Your task to perform on an android device: turn on bluetooth scan Image 0: 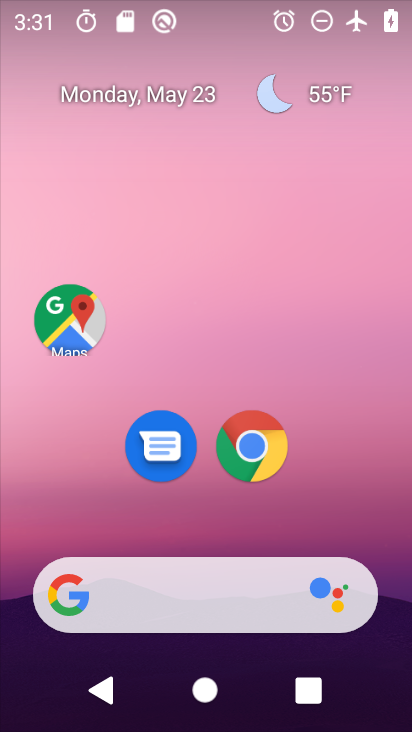
Step 0: drag from (206, 512) to (179, 135)
Your task to perform on an android device: turn on bluetooth scan Image 1: 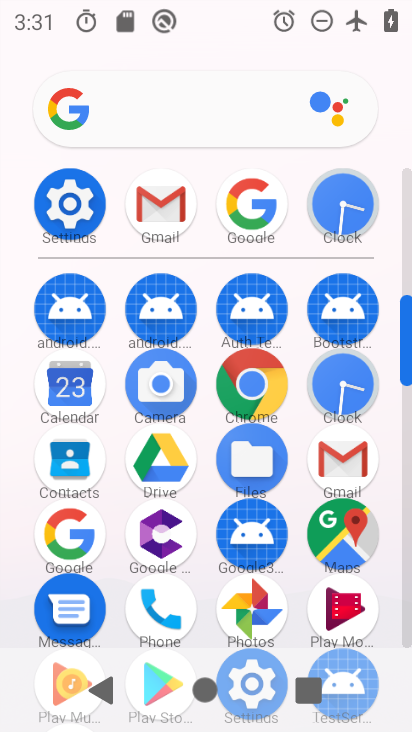
Step 1: click (37, 208)
Your task to perform on an android device: turn on bluetooth scan Image 2: 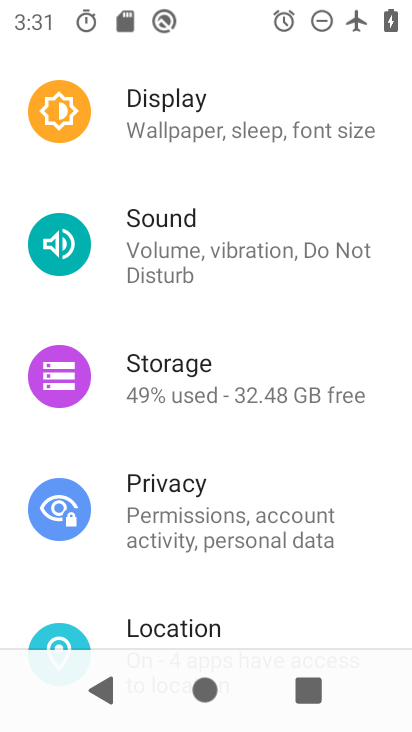
Step 2: click (240, 606)
Your task to perform on an android device: turn on bluetooth scan Image 3: 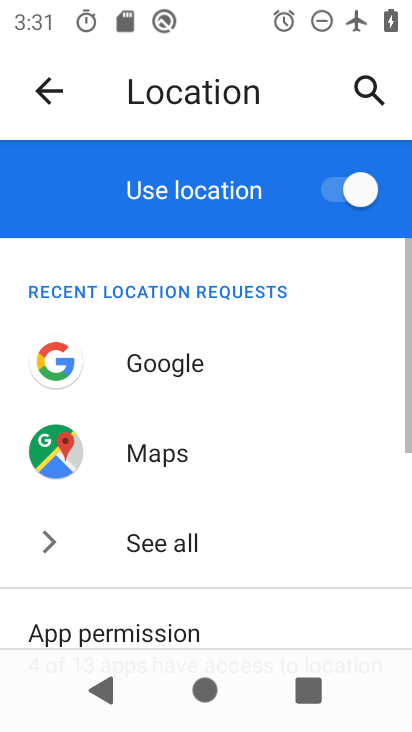
Step 3: drag from (231, 546) to (188, 269)
Your task to perform on an android device: turn on bluetooth scan Image 4: 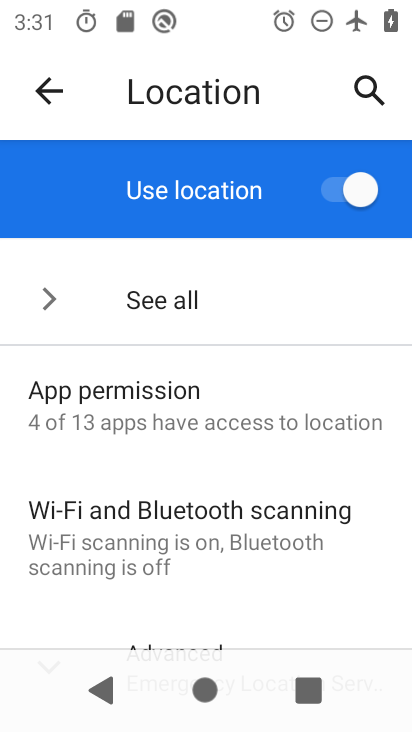
Step 4: click (270, 546)
Your task to perform on an android device: turn on bluetooth scan Image 5: 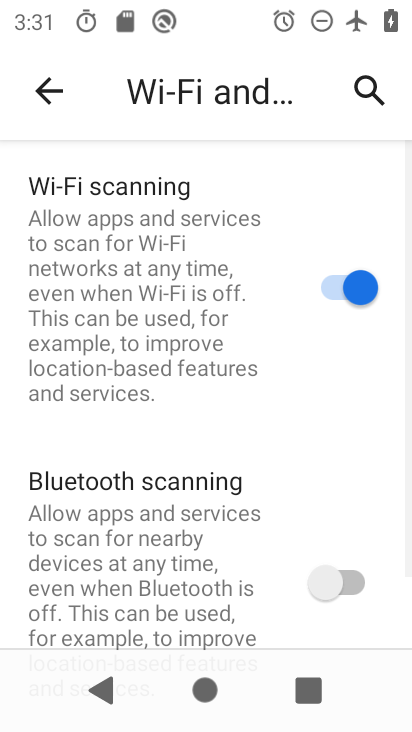
Step 5: click (347, 579)
Your task to perform on an android device: turn on bluetooth scan Image 6: 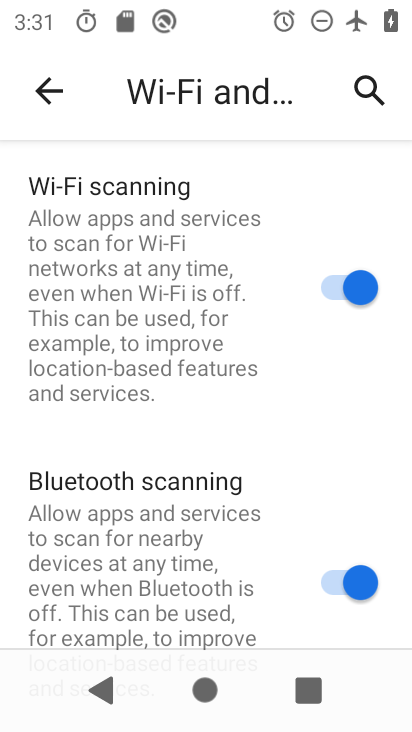
Step 6: task complete